Your task to perform on an android device: Go to CNN.com Image 0: 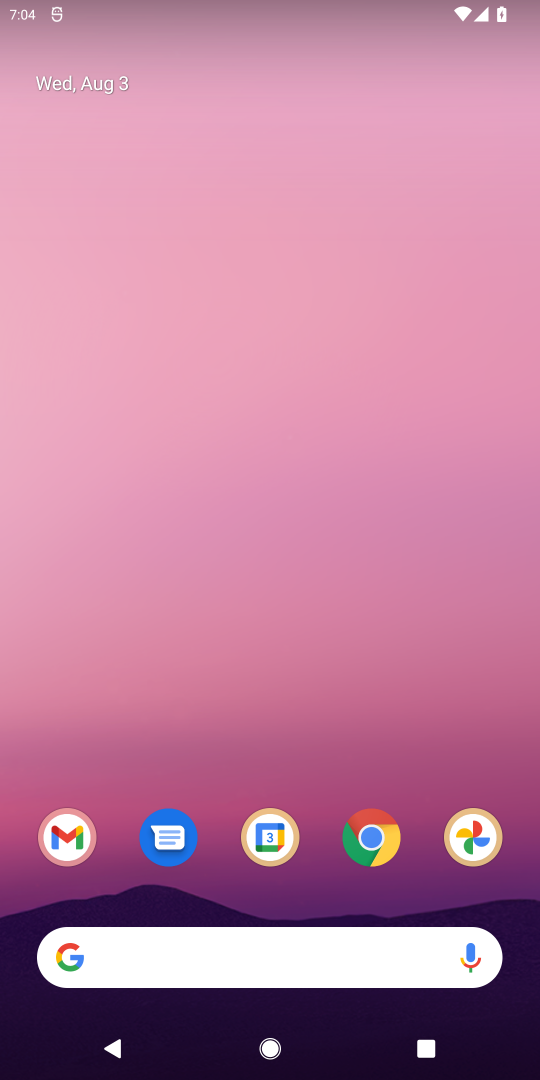
Step 0: press home button
Your task to perform on an android device: Go to CNN.com Image 1: 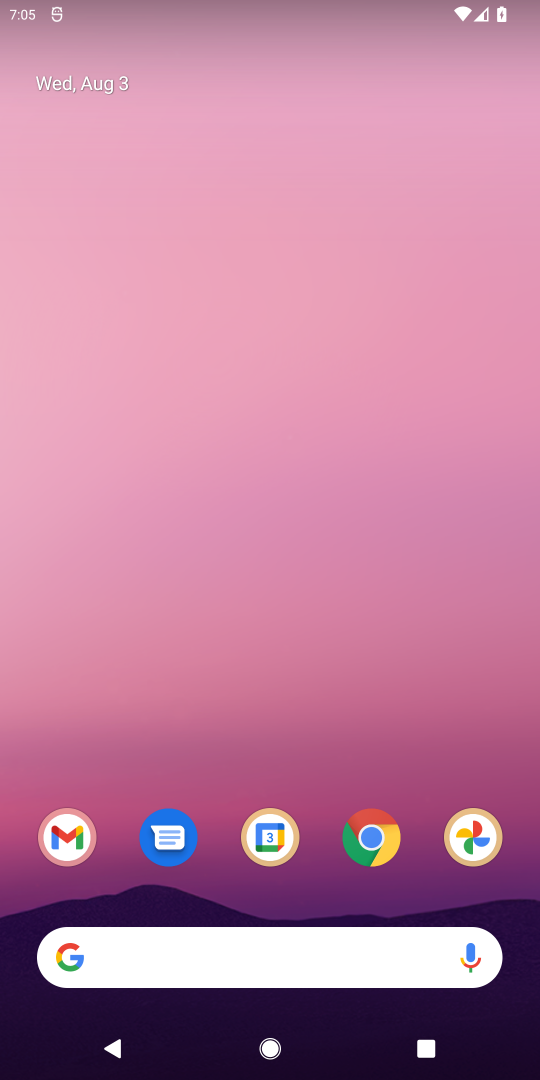
Step 1: click (74, 958)
Your task to perform on an android device: Go to CNN.com Image 2: 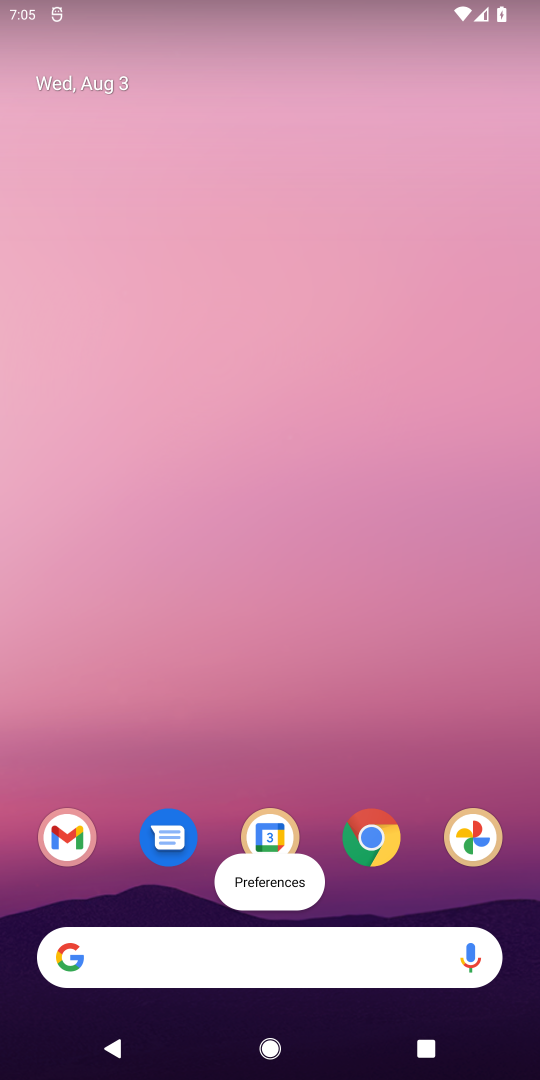
Step 2: click (69, 958)
Your task to perform on an android device: Go to CNN.com Image 3: 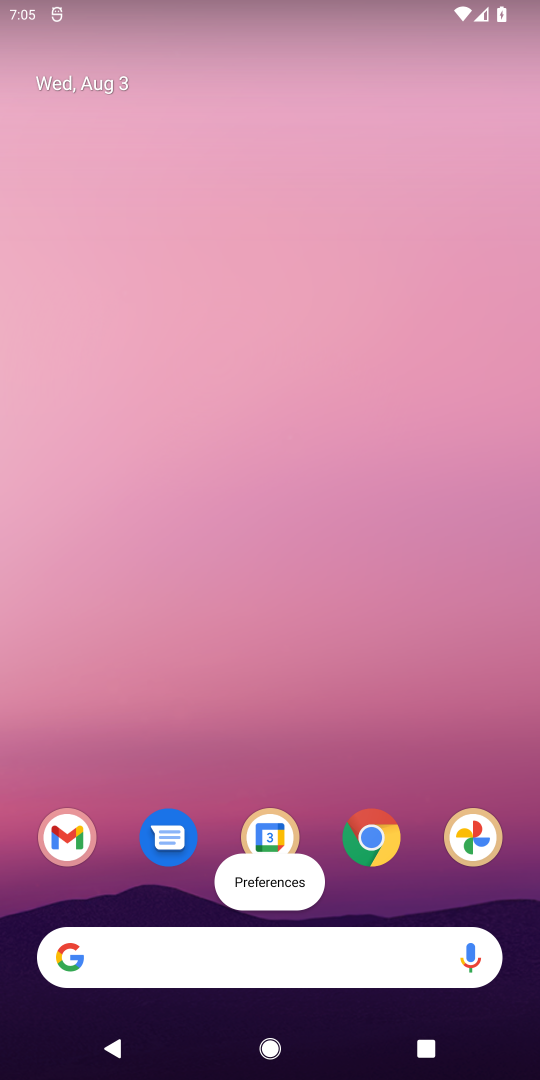
Step 3: click (62, 963)
Your task to perform on an android device: Go to CNN.com Image 4: 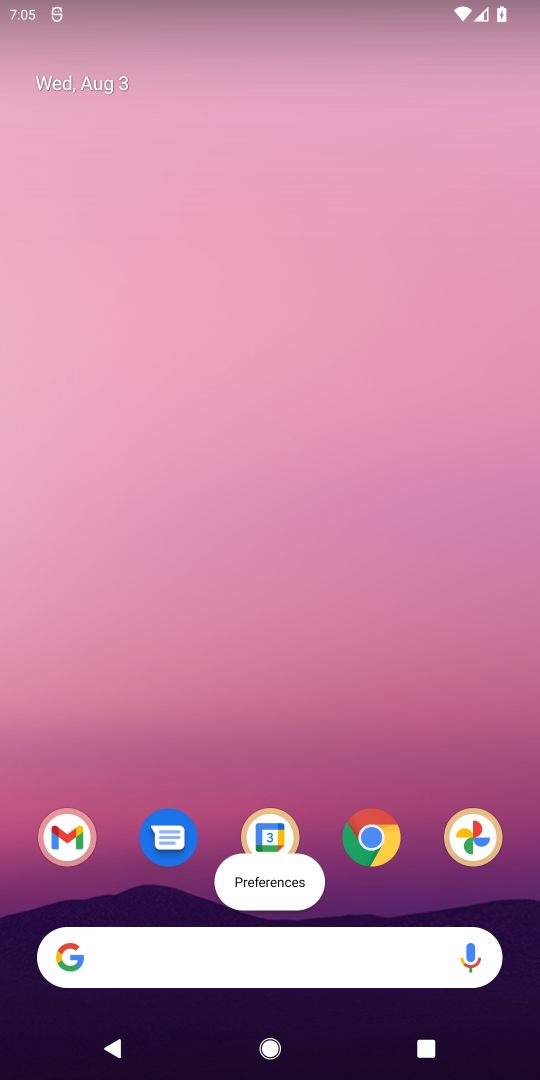
Step 4: click (62, 963)
Your task to perform on an android device: Go to CNN.com Image 5: 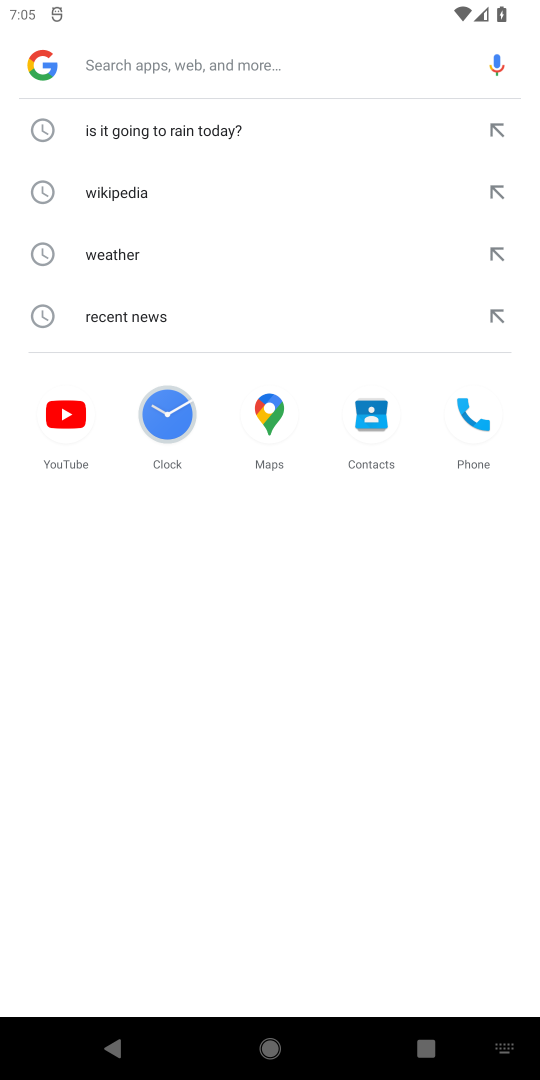
Step 5: type "CNN.com"
Your task to perform on an android device: Go to CNN.com Image 6: 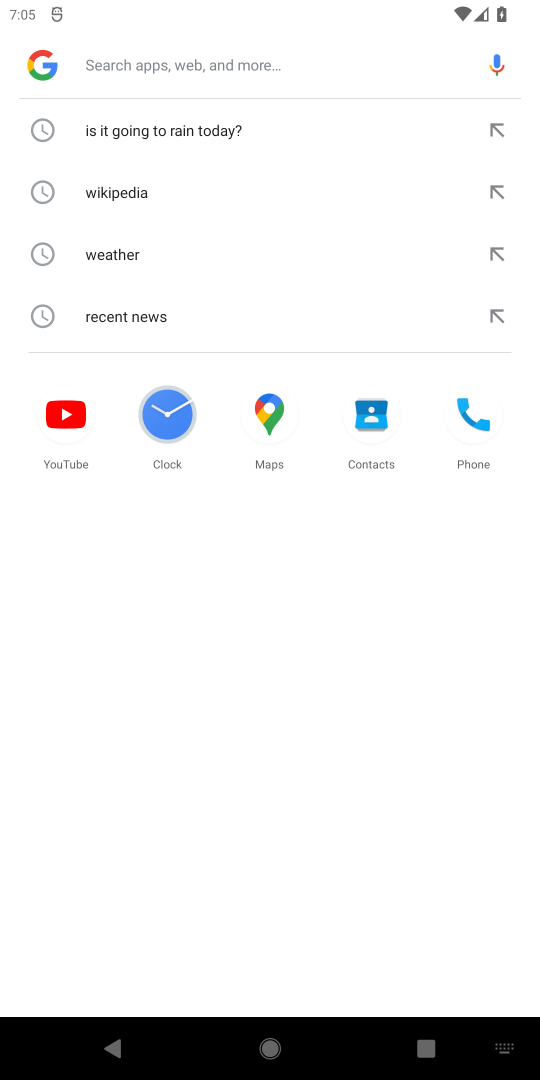
Step 6: click (123, 70)
Your task to perform on an android device: Go to CNN.com Image 7: 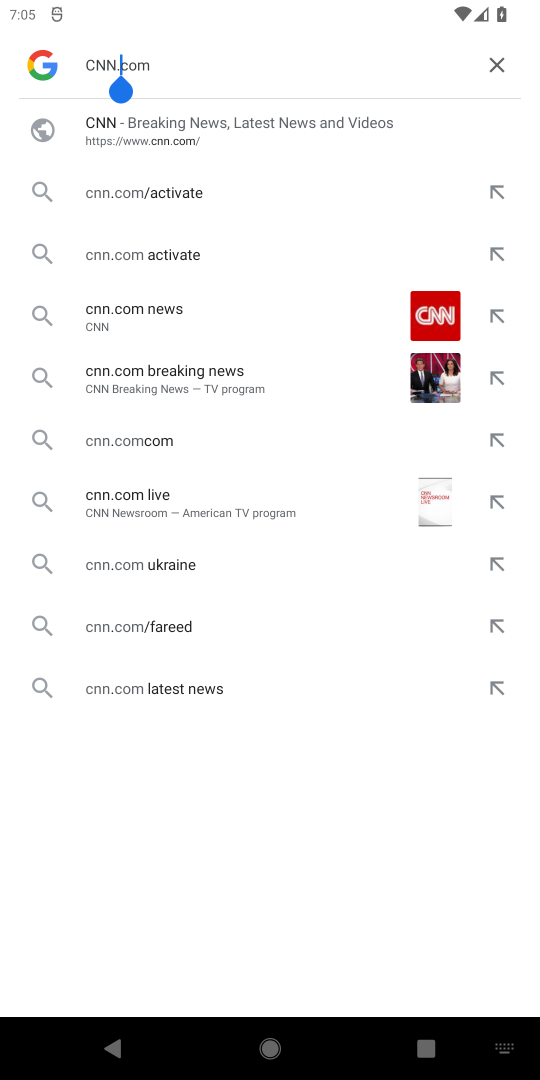
Step 7: press enter
Your task to perform on an android device: Go to CNN.com Image 8: 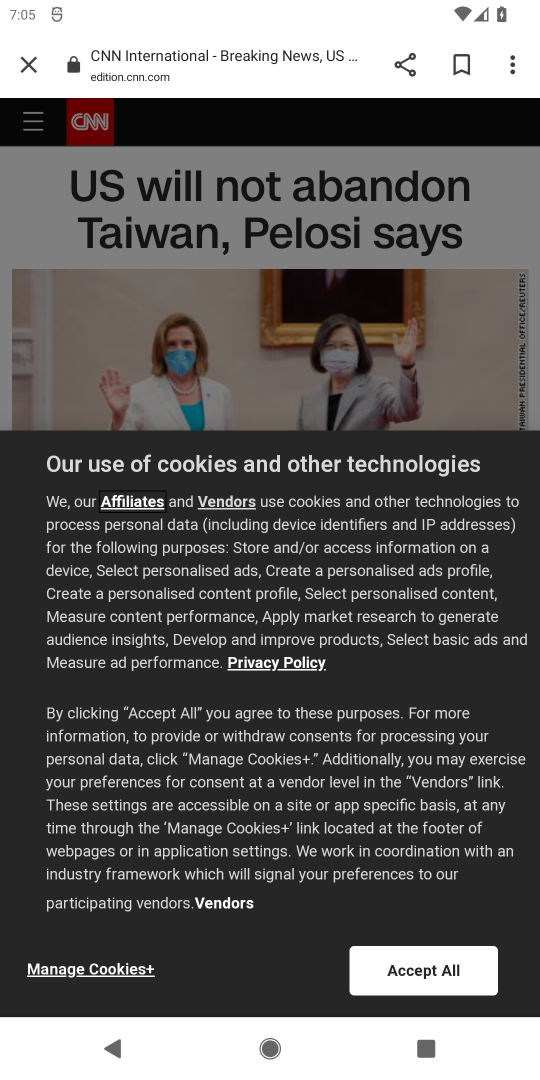
Step 8: task complete